Your task to perform on an android device: change alarm snooze length Image 0: 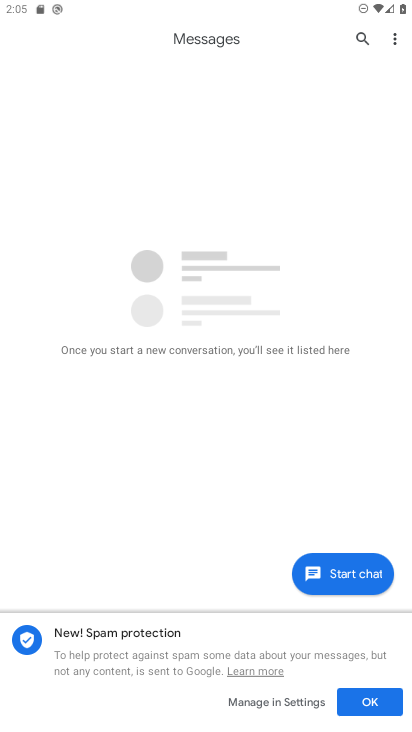
Step 0: press home button
Your task to perform on an android device: change alarm snooze length Image 1: 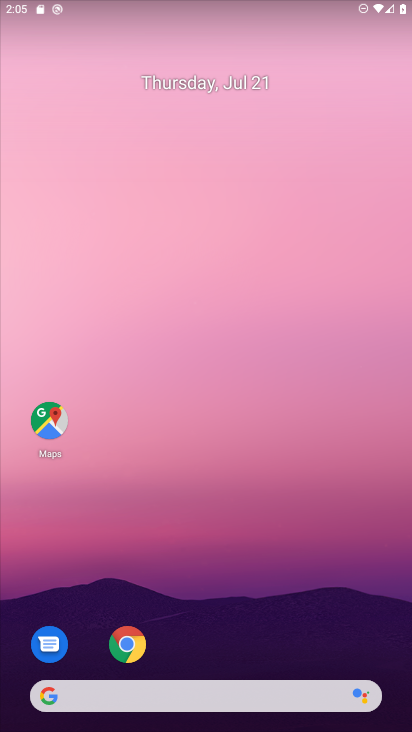
Step 1: drag from (282, 617) to (267, 158)
Your task to perform on an android device: change alarm snooze length Image 2: 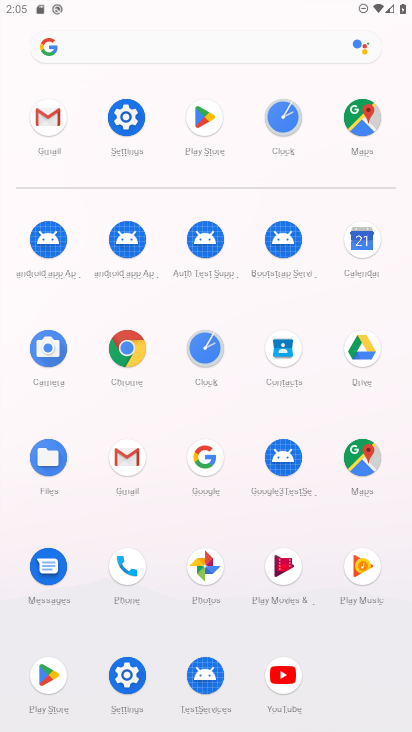
Step 2: click (275, 118)
Your task to perform on an android device: change alarm snooze length Image 3: 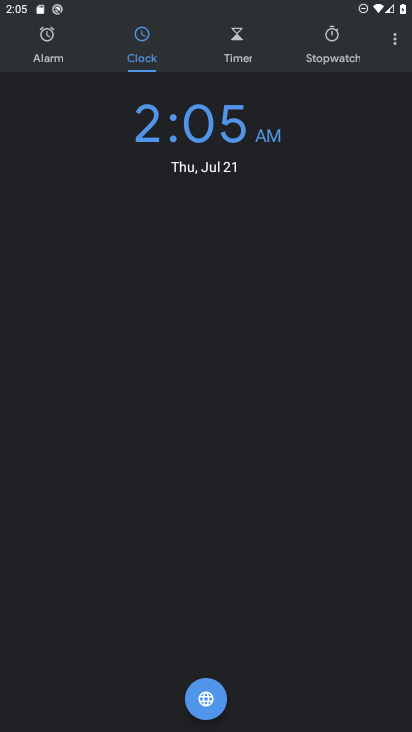
Step 3: click (393, 36)
Your task to perform on an android device: change alarm snooze length Image 4: 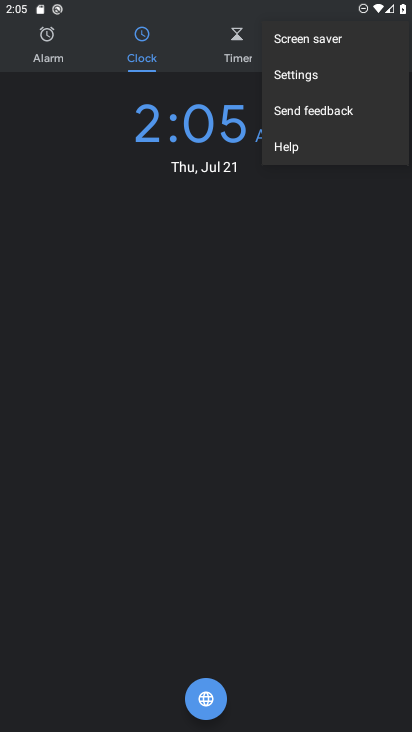
Step 4: click (297, 80)
Your task to perform on an android device: change alarm snooze length Image 5: 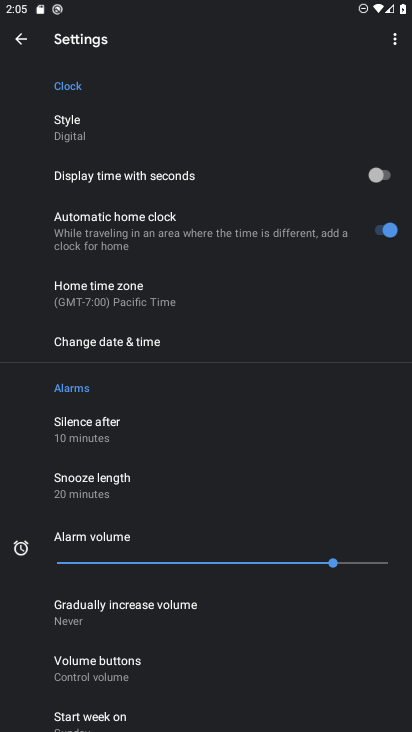
Step 5: click (102, 488)
Your task to perform on an android device: change alarm snooze length Image 6: 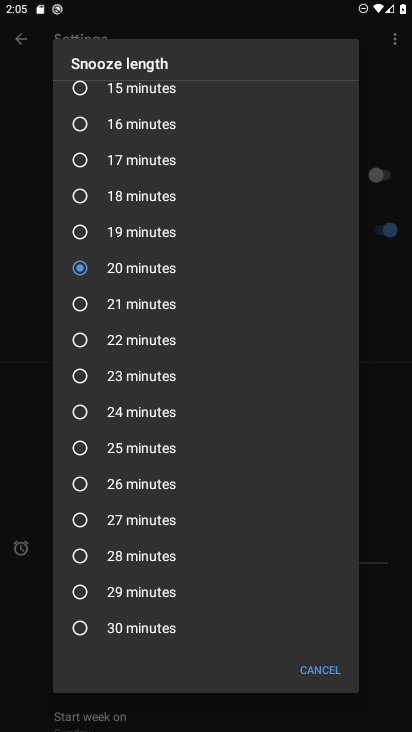
Step 6: click (92, 114)
Your task to perform on an android device: change alarm snooze length Image 7: 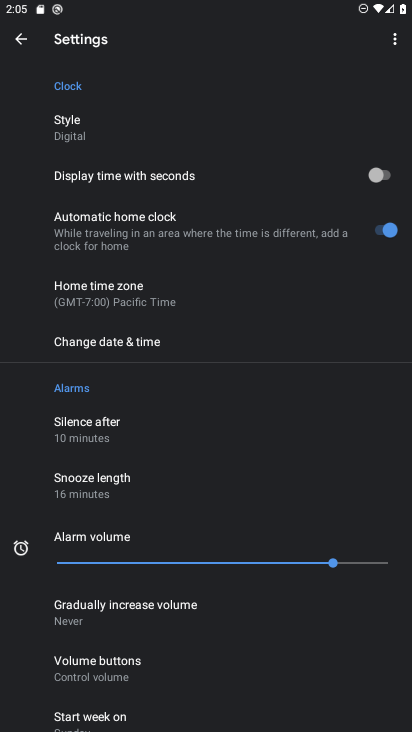
Step 7: task complete